Your task to perform on an android device: check battery use Image 0: 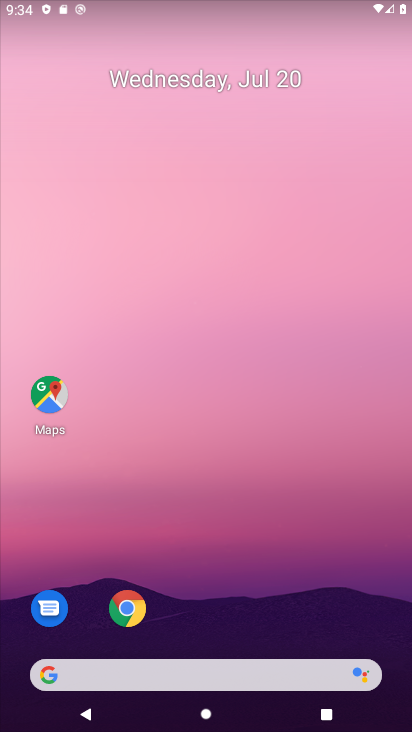
Step 0: drag from (277, 613) to (261, 128)
Your task to perform on an android device: check battery use Image 1: 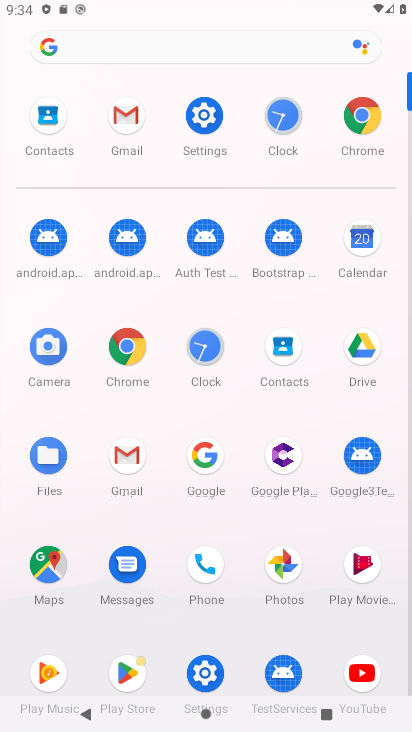
Step 1: click (202, 115)
Your task to perform on an android device: check battery use Image 2: 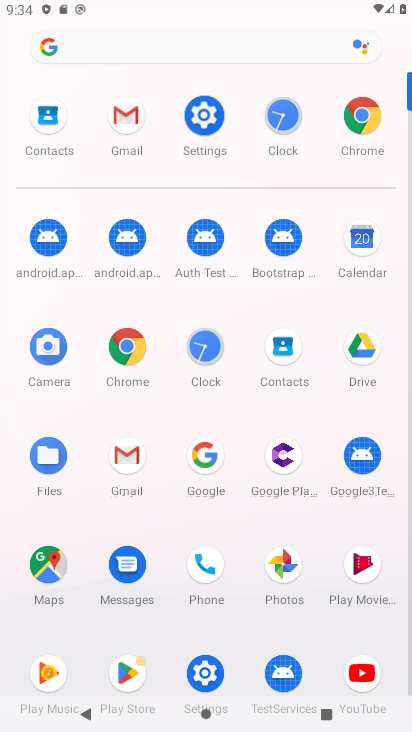
Step 2: click (203, 115)
Your task to perform on an android device: check battery use Image 3: 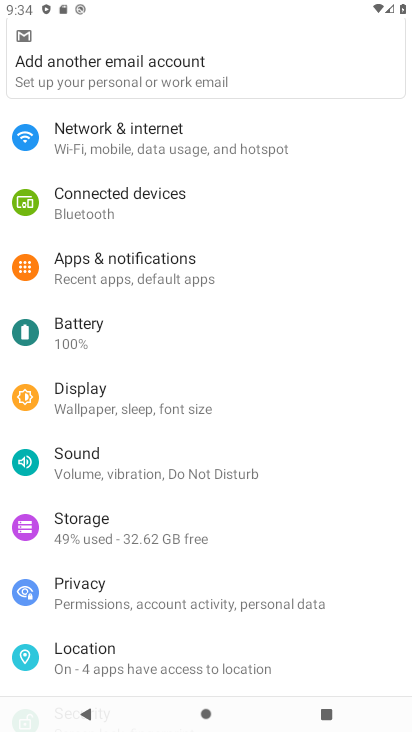
Step 3: click (64, 334)
Your task to perform on an android device: check battery use Image 4: 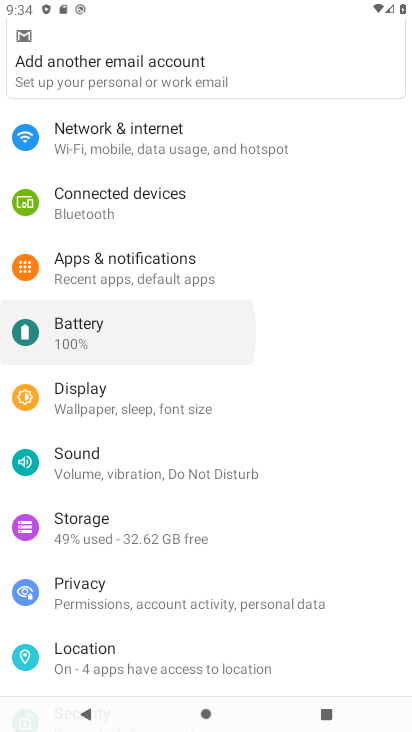
Step 4: click (64, 334)
Your task to perform on an android device: check battery use Image 5: 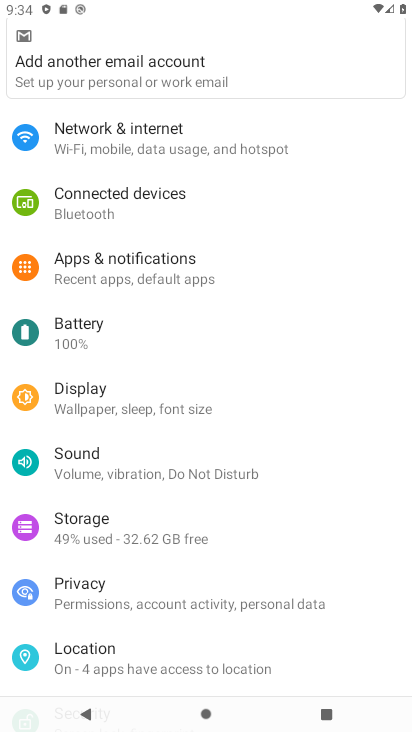
Step 5: click (66, 337)
Your task to perform on an android device: check battery use Image 6: 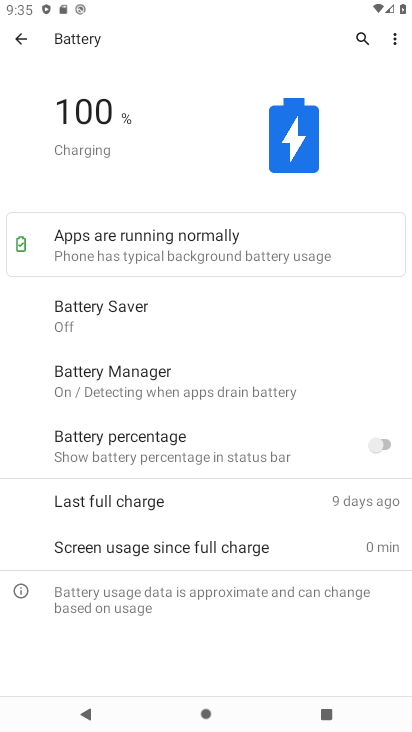
Step 6: task complete